Your task to perform on an android device: Open network settings Image 0: 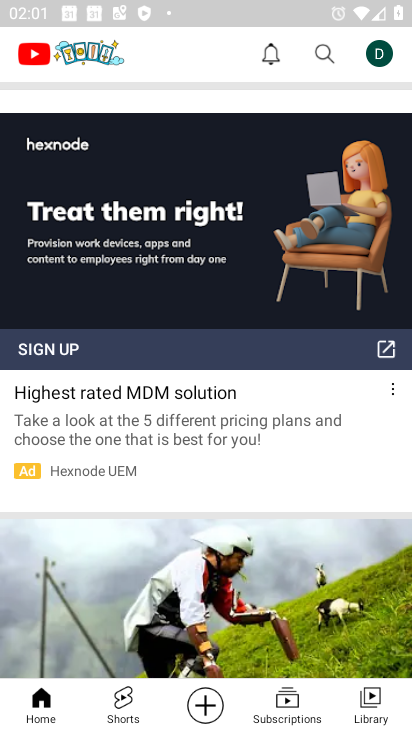
Step 0: press home button
Your task to perform on an android device: Open network settings Image 1: 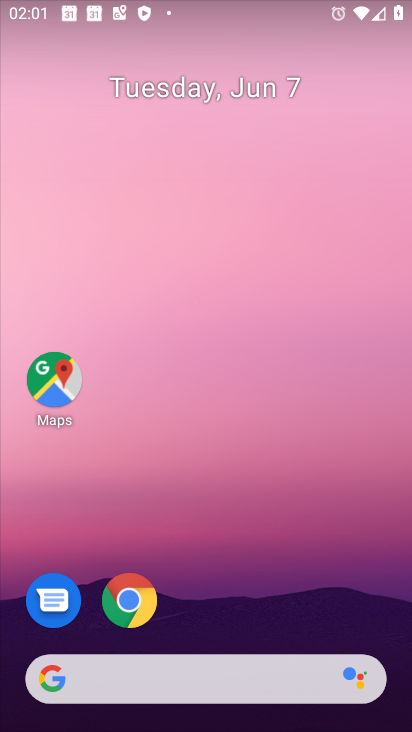
Step 1: drag from (238, 730) to (223, 80)
Your task to perform on an android device: Open network settings Image 2: 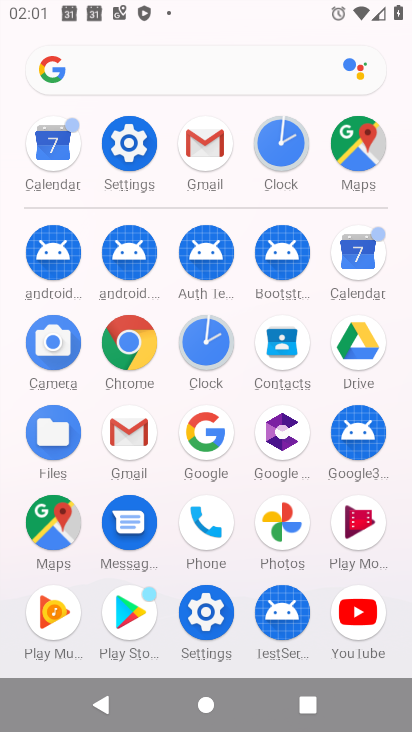
Step 2: click (136, 146)
Your task to perform on an android device: Open network settings Image 3: 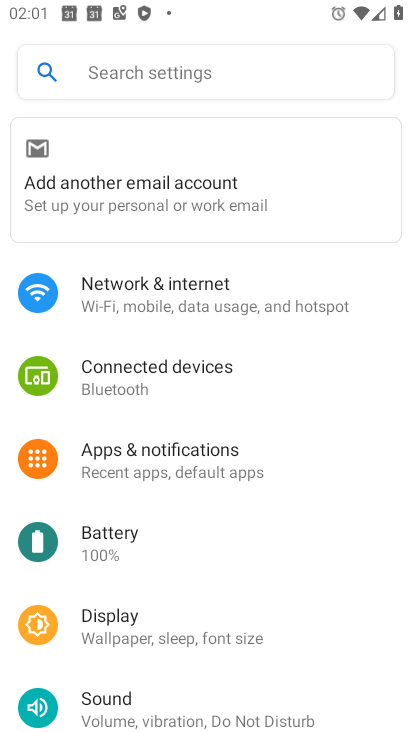
Step 3: click (127, 307)
Your task to perform on an android device: Open network settings Image 4: 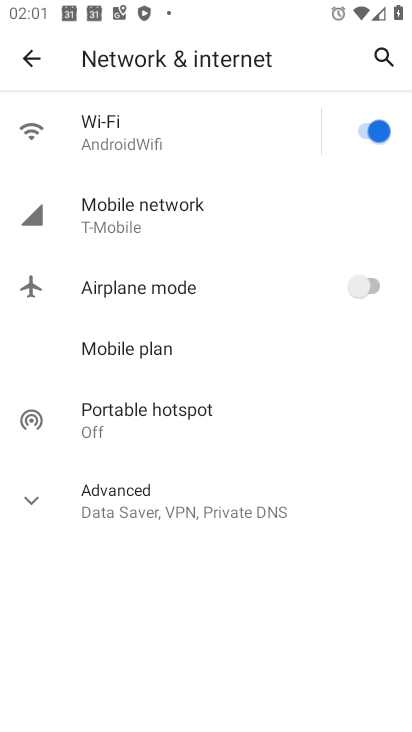
Step 4: click (121, 210)
Your task to perform on an android device: Open network settings Image 5: 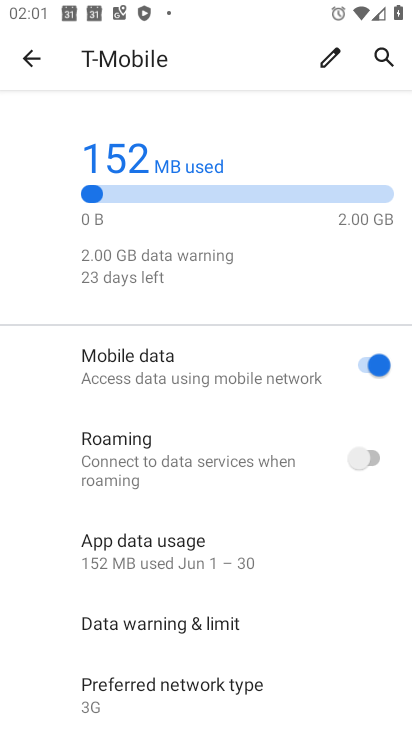
Step 5: task complete